Your task to perform on an android device: Search for sushi restaurants on Maps Image 0: 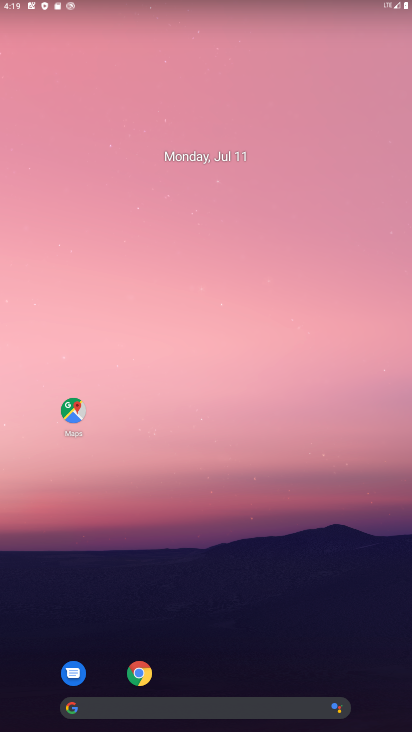
Step 0: click (71, 412)
Your task to perform on an android device: Search for sushi restaurants on Maps Image 1: 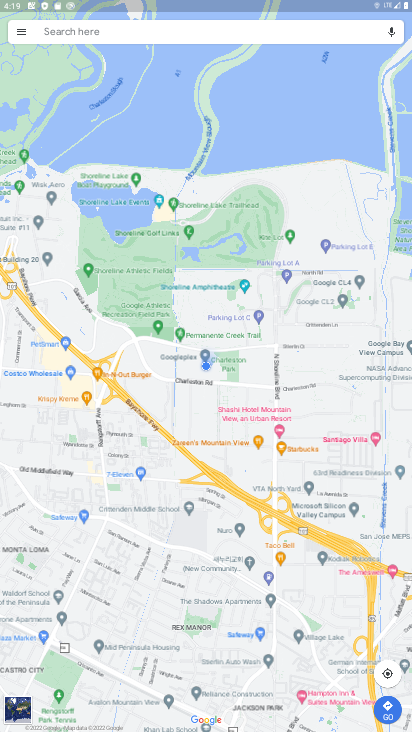
Step 1: click (171, 31)
Your task to perform on an android device: Search for sushi restaurants on Maps Image 2: 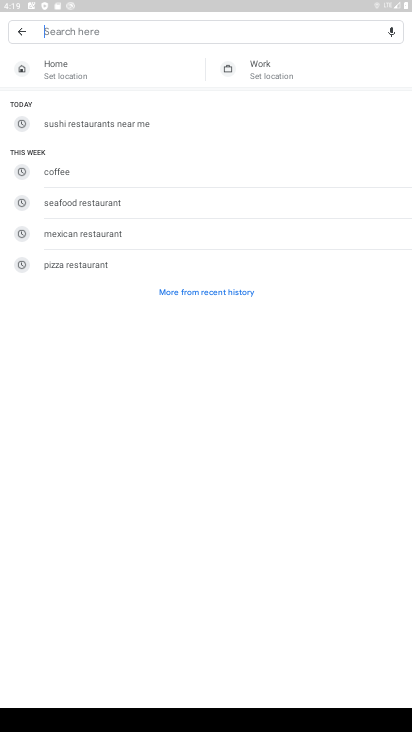
Step 2: type "sushi restaurants"
Your task to perform on an android device: Search for sushi restaurants on Maps Image 3: 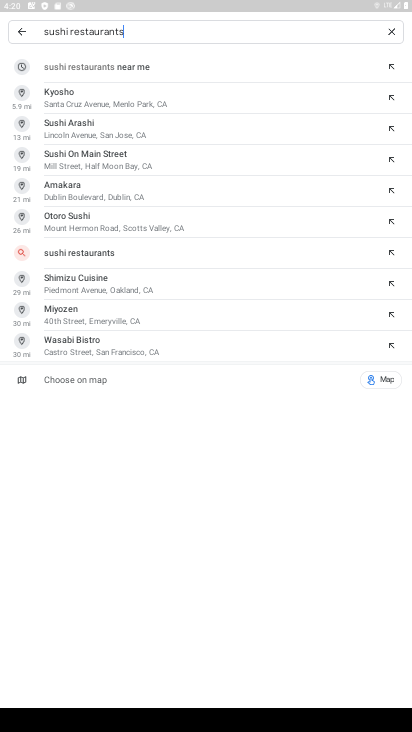
Step 3: click (103, 252)
Your task to perform on an android device: Search for sushi restaurants on Maps Image 4: 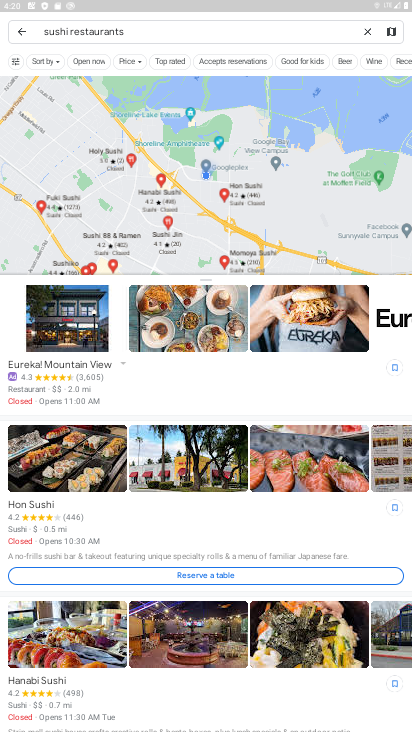
Step 4: task complete